Your task to perform on an android device: allow notifications from all sites in the chrome app Image 0: 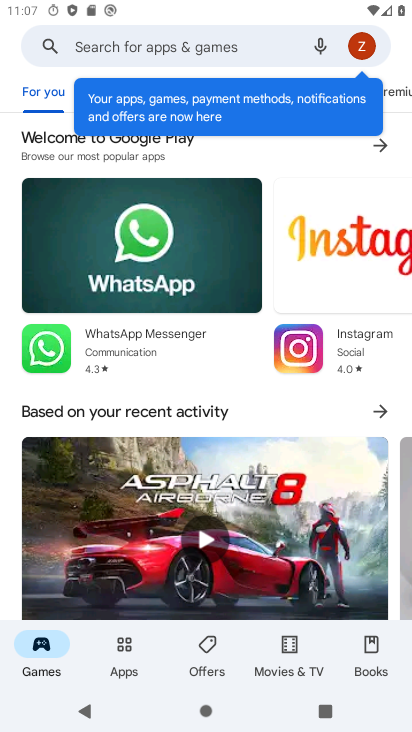
Step 0: press home button
Your task to perform on an android device: allow notifications from all sites in the chrome app Image 1: 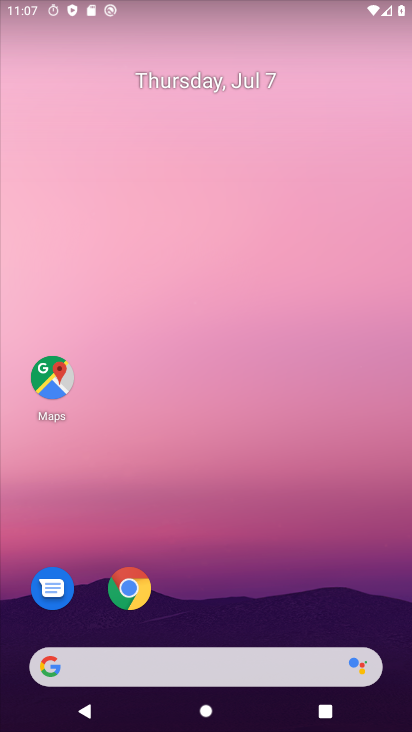
Step 1: drag from (241, 577) to (268, 72)
Your task to perform on an android device: allow notifications from all sites in the chrome app Image 2: 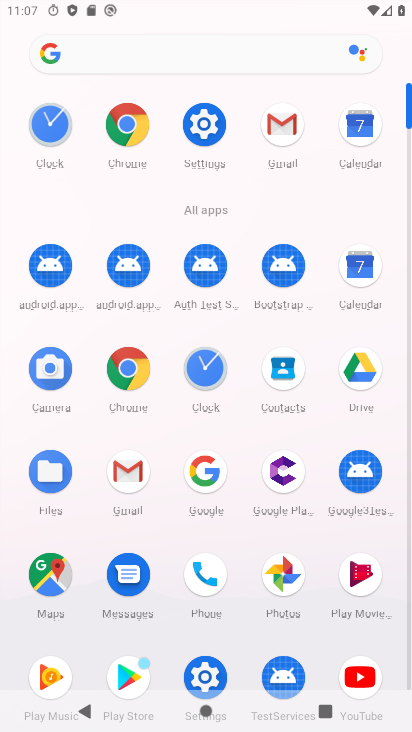
Step 2: click (124, 119)
Your task to perform on an android device: allow notifications from all sites in the chrome app Image 3: 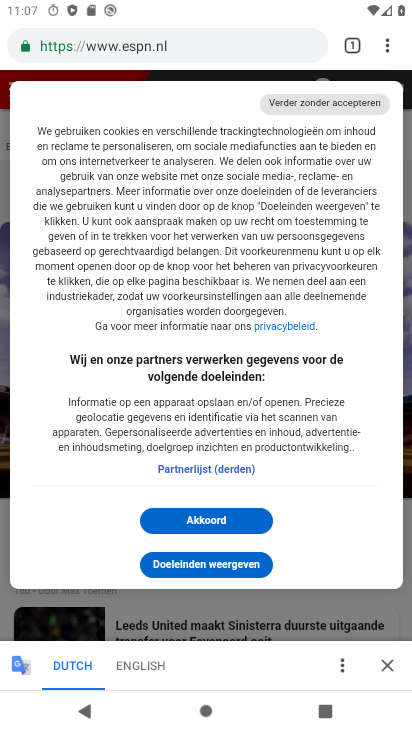
Step 3: drag from (384, 39) to (240, 549)
Your task to perform on an android device: allow notifications from all sites in the chrome app Image 4: 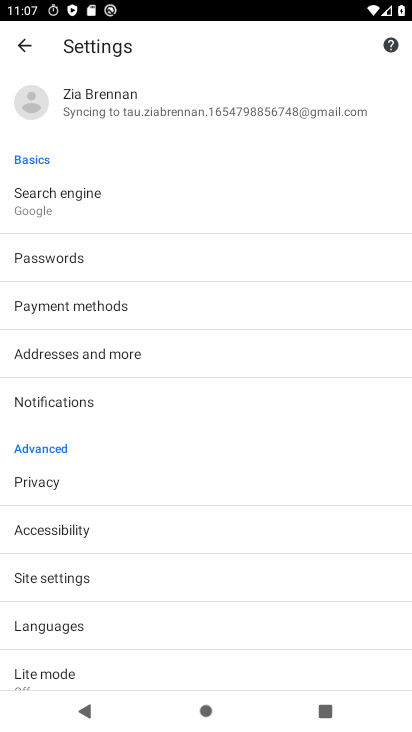
Step 4: click (67, 405)
Your task to perform on an android device: allow notifications from all sites in the chrome app Image 5: 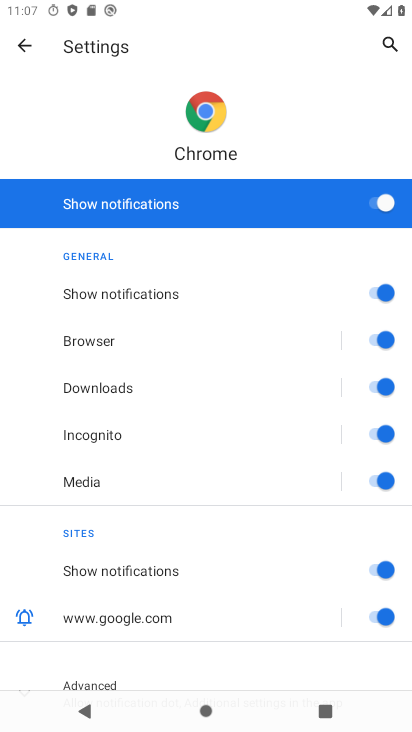
Step 5: task complete